Your task to perform on an android device: Go to sound settings Image 0: 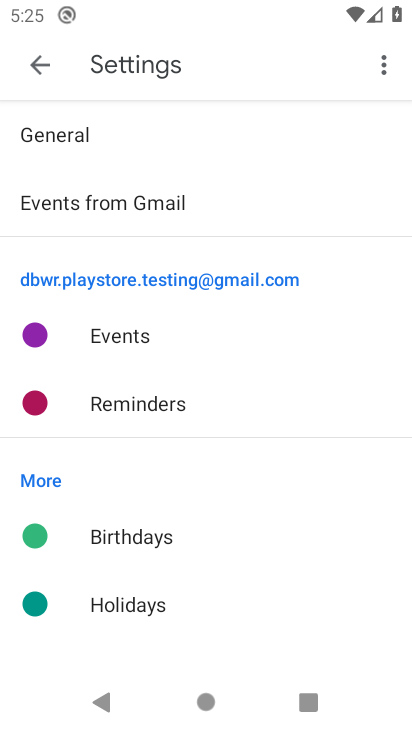
Step 0: press home button
Your task to perform on an android device: Go to sound settings Image 1: 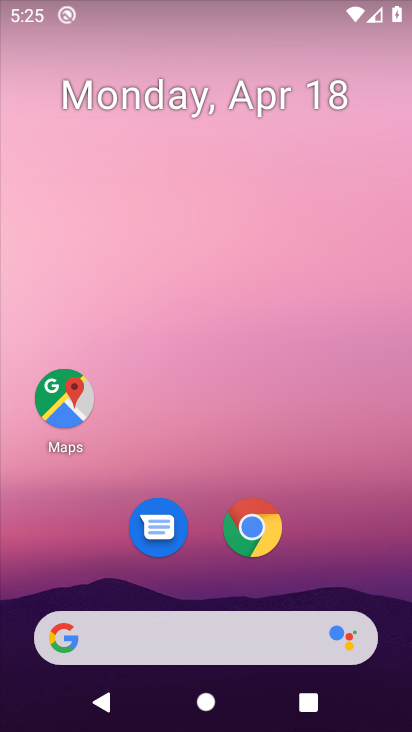
Step 1: drag from (218, 564) to (249, 161)
Your task to perform on an android device: Go to sound settings Image 2: 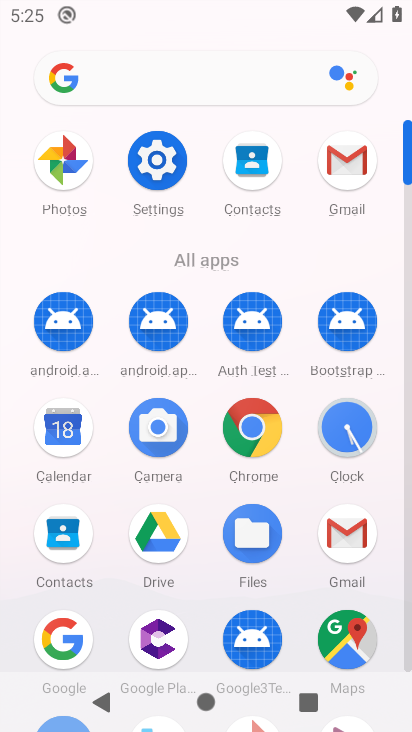
Step 2: click (157, 159)
Your task to perform on an android device: Go to sound settings Image 3: 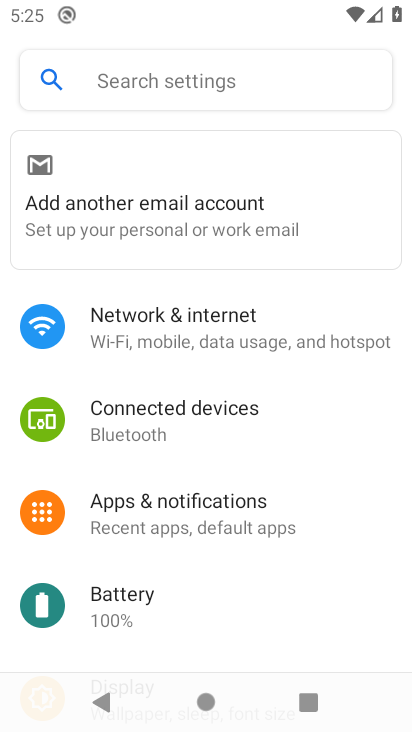
Step 3: drag from (204, 628) to (230, 275)
Your task to perform on an android device: Go to sound settings Image 4: 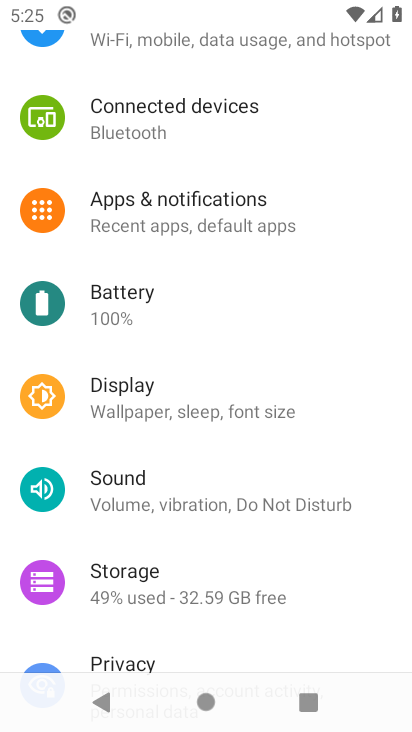
Step 4: click (169, 491)
Your task to perform on an android device: Go to sound settings Image 5: 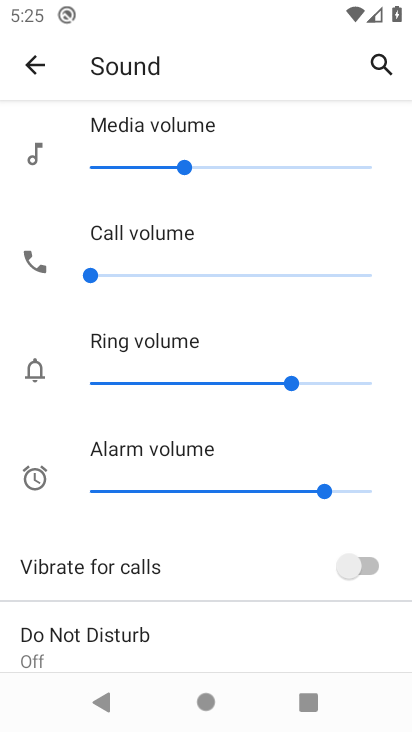
Step 5: drag from (283, 620) to (288, 263)
Your task to perform on an android device: Go to sound settings Image 6: 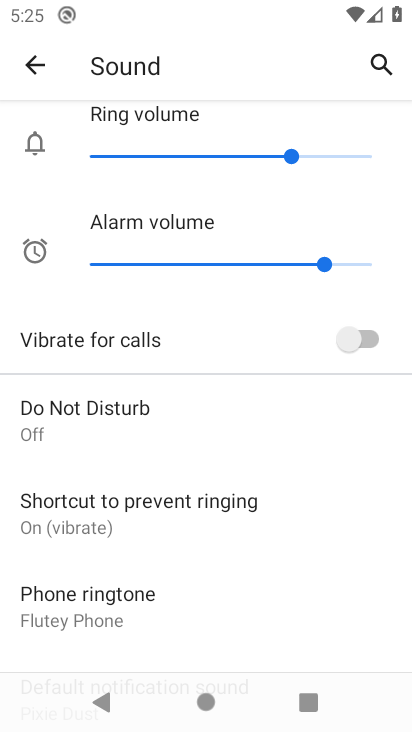
Step 6: drag from (242, 613) to (227, 321)
Your task to perform on an android device: Go to sound settings Image 7: 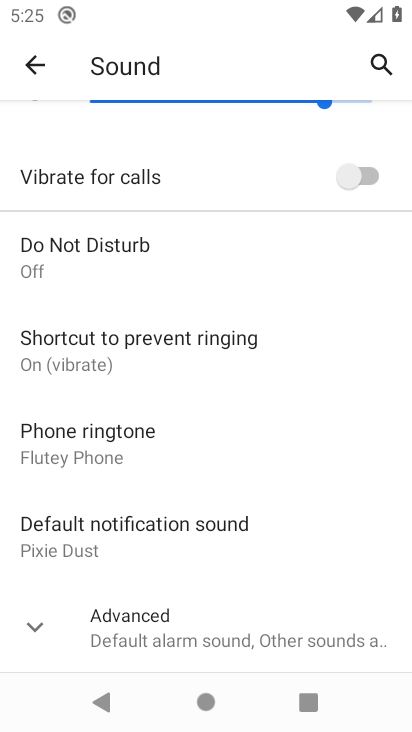
Step 7: click (105, 635)
Your task to perform on an android device: Go to sound settings Image 8: 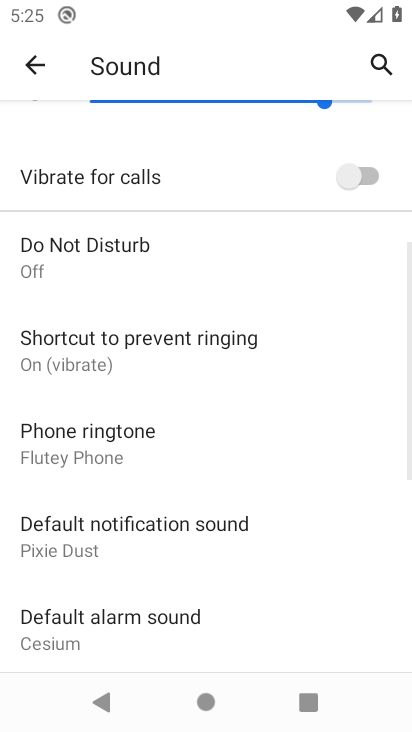
Step 8: task complete